Your task to perform on an android device: What's the news in Bangladesh? Image 0: 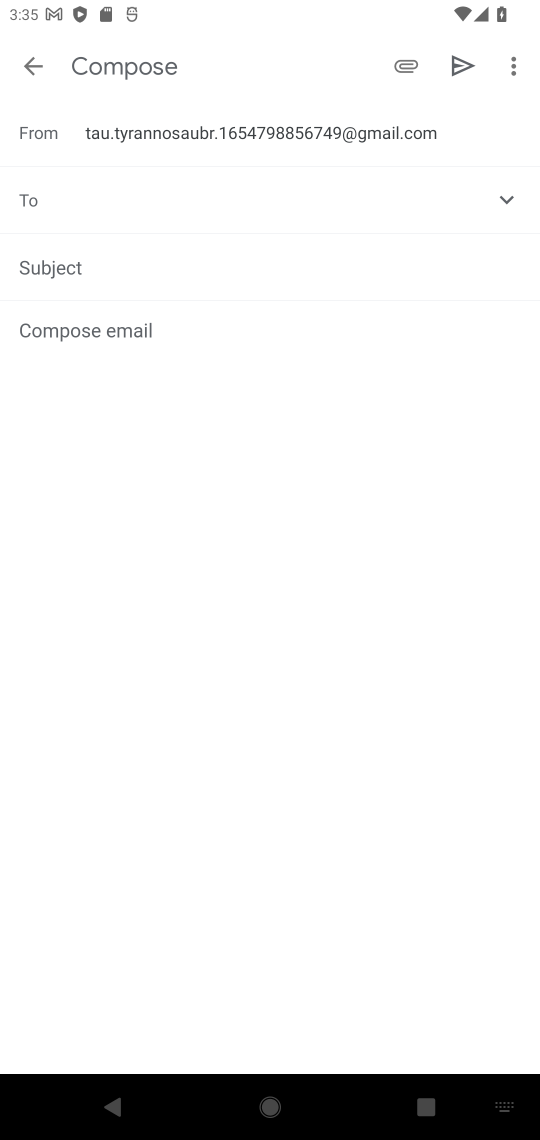
Step 0: press home button
Your task to perform on an android device: What's the news in Bangladesh? Image 1: 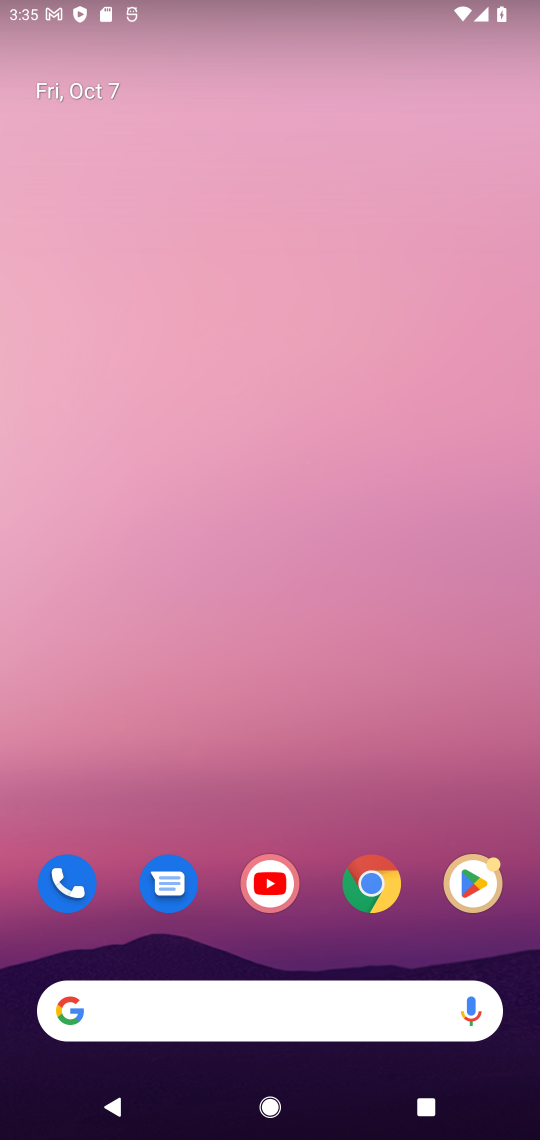
Step 1: click (384, 909)
Your task to perform on an android device: What's the news in Bangladesh? Image 2: 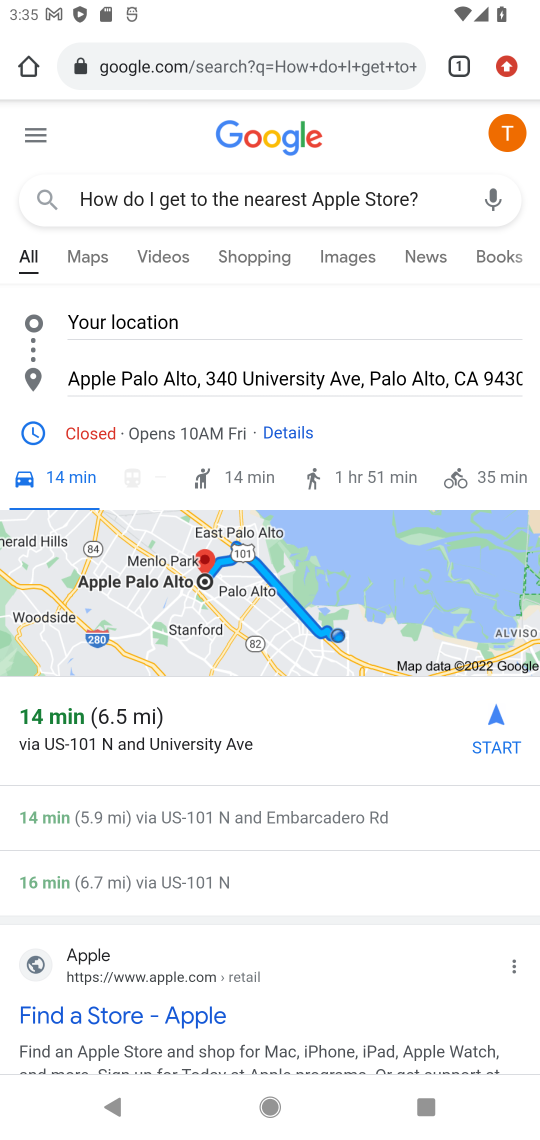
Step 2: click (267, 190)
Your task to perform on an android device: What's the news in Bangladesh? Image 3: 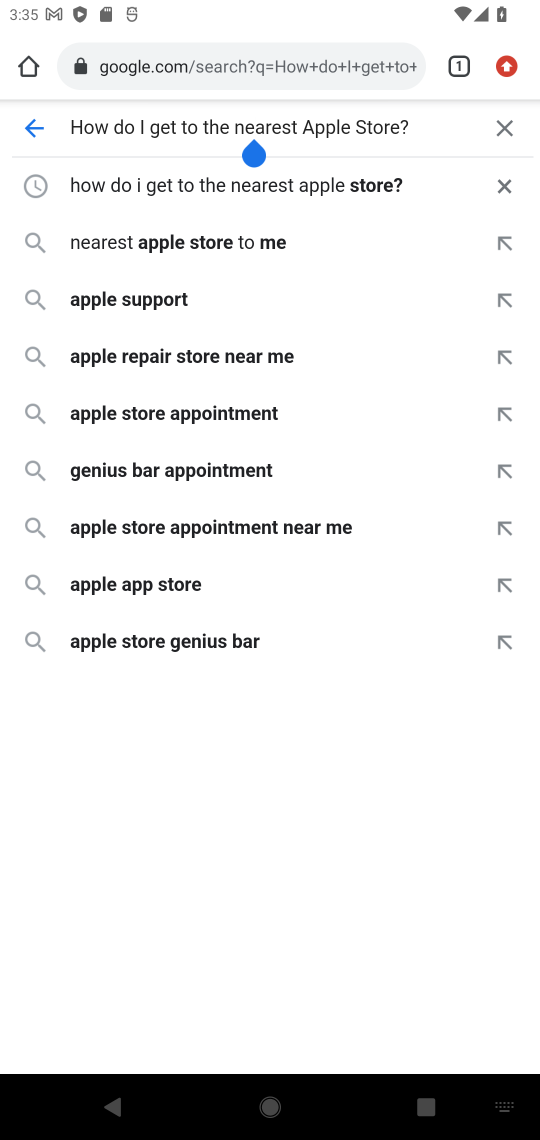
Step 3: click (500, 130)
Your task to perform on an android device: What's the news in Bangladesh? Image 4: 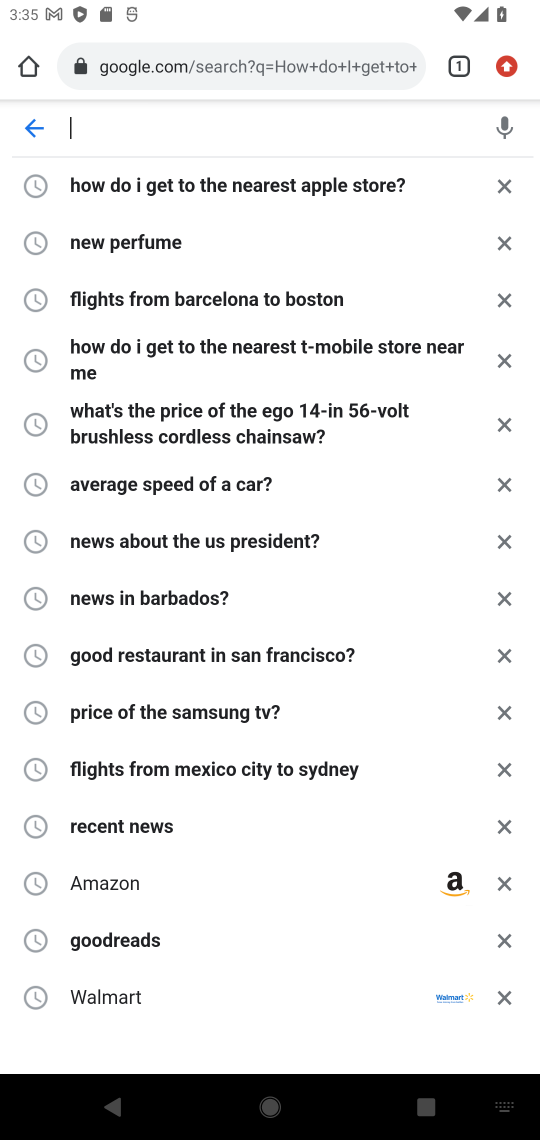
Step 4: type "news in banglasdesh?"
Your task to perform on an android device: What's the news in Bangladesh? Image 5: 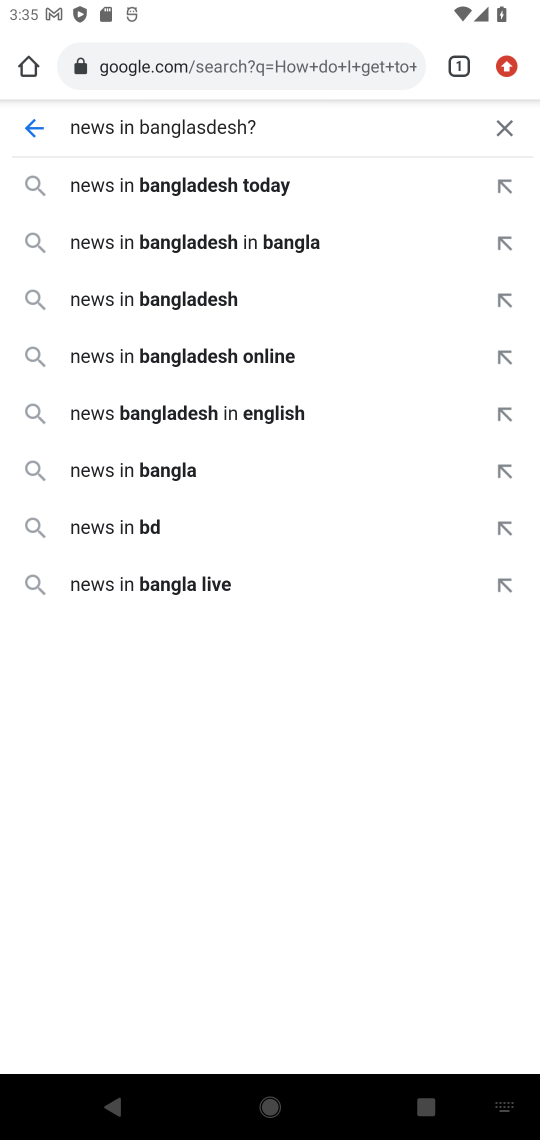
Step 5: press enter
Your task to perform on an android device: What's the news in Bangladesh? Image 6: 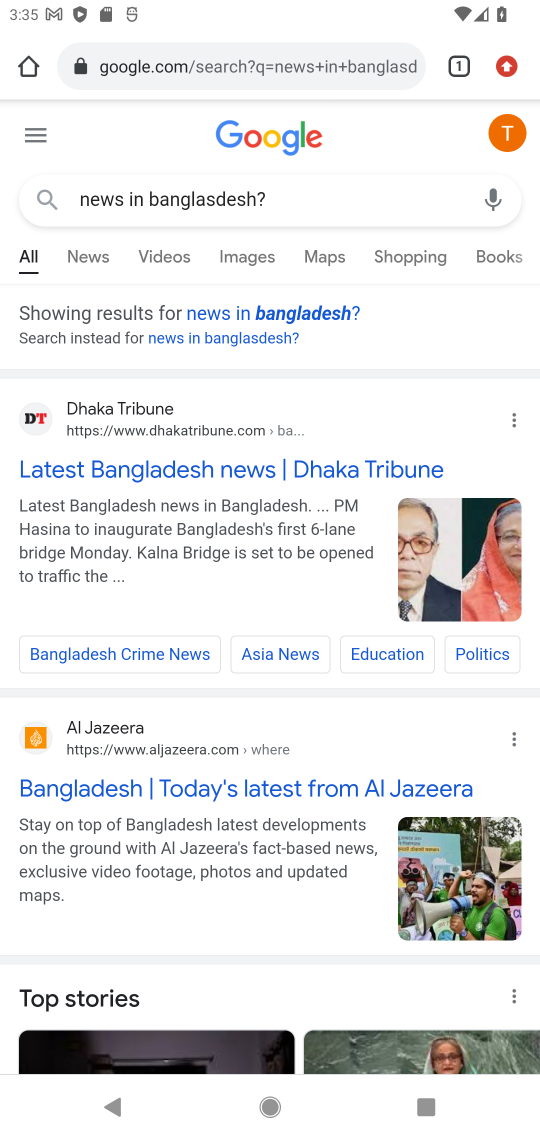
Step 6: task complete